Your task to perform on an android device: manage bookmarks in the chrome app Image 0: 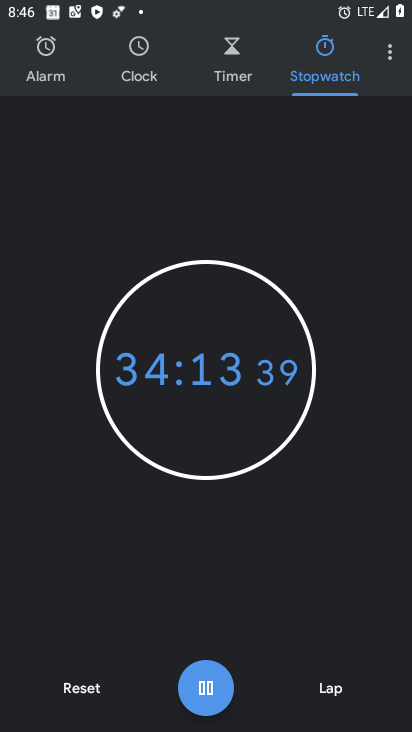
Step 0: press home button
Your task to perform on an android device: manage bookmarks in the chrome app Image 1: 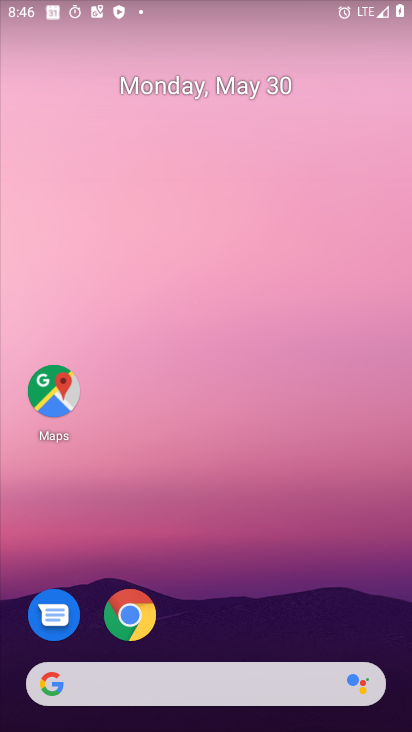
Step 1: drag from (304, 459) to (311, 27)
Your task to perform on an android device: manage bookmarks in the chrome app Image 2: 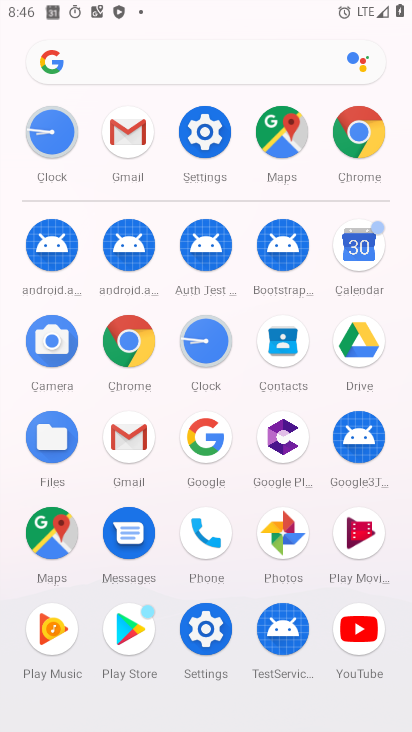
Step 2: click (362, 116)
Your task to perform on an android device: manage bookmarks in the chrome app Image 3: 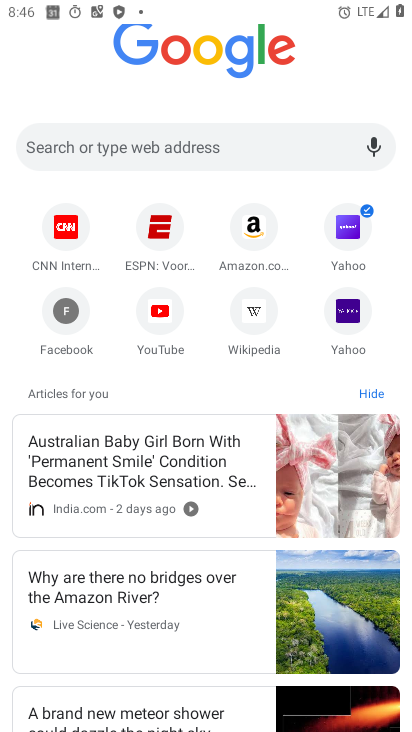
Step 3: drag from (359, 112) to (352, 575)
Your task to perform on an android device: manage bookmarks in the chrome app Image 4: 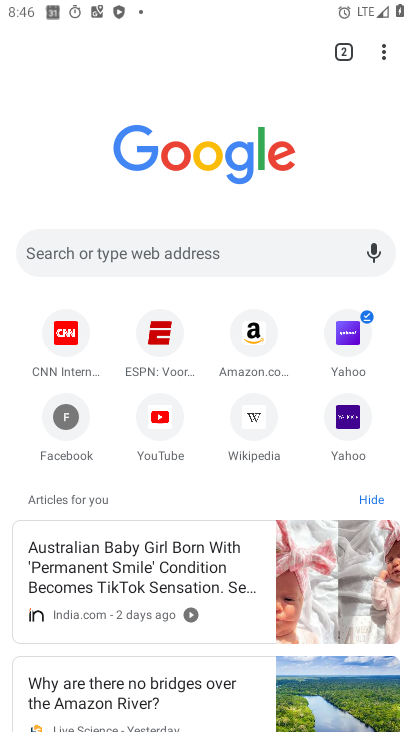
Step 4: drag from (383, 54) to (213, 177)
Your task to perform on an android device: manage bookmarks in the chrome app Image 5: 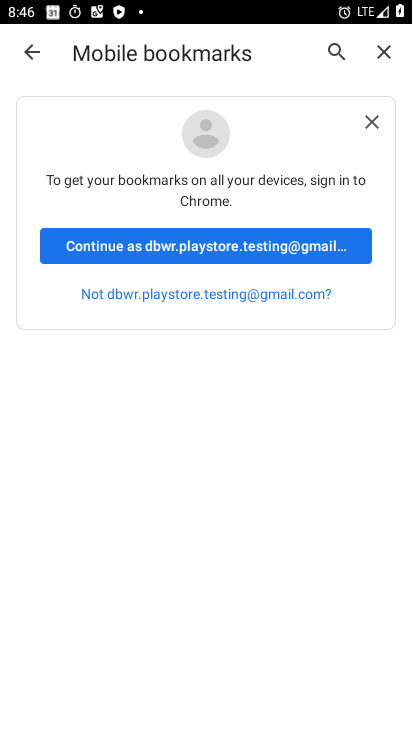
Step 5: click (232, 242)
Your task to perform on an android device: manage bookmarks in the chrome app Image 6: 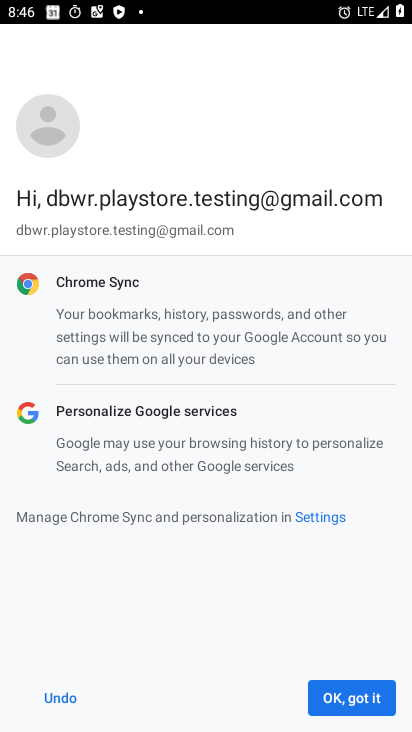
Step 6: click (346, 705)
Your task to perform on an android device: manage bookmarks in the chrome app Image 7: 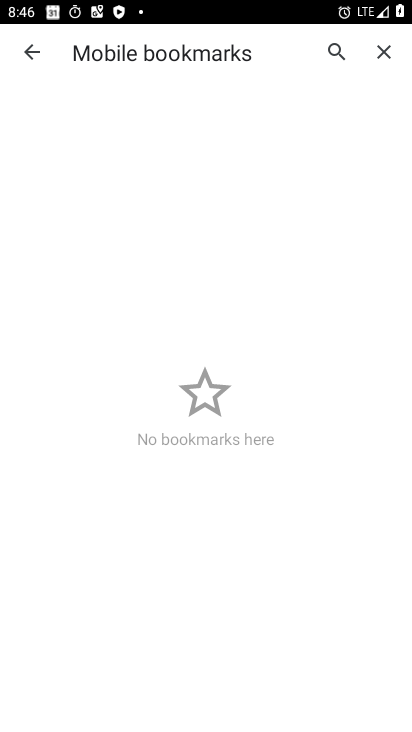
Step 7: task complete